Your task to perform on an android device: uninstall "Google Photos" Image 0: 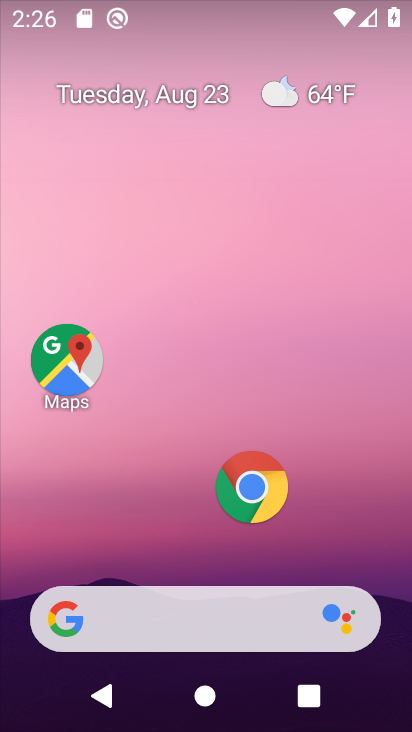
Step 0: drag from (185, 555) to (202, 314)
Your task to perform on an android device: uninstall "Google Photos" Image 1: 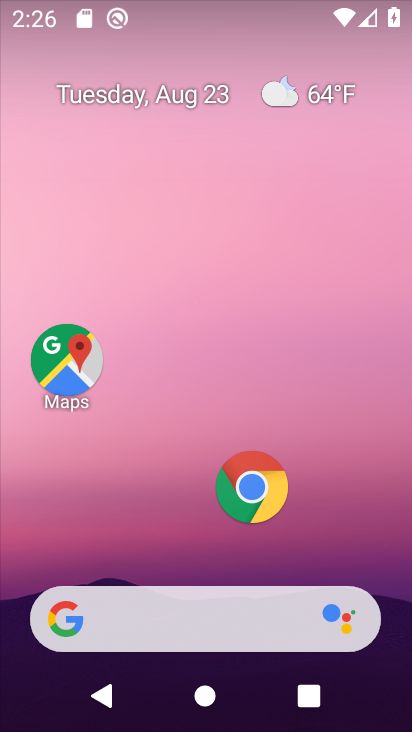
Step 1: drag from (156, 510) to (176, 223)
Your task to perform on an android device: uninstall "Google Photos" Image 2: 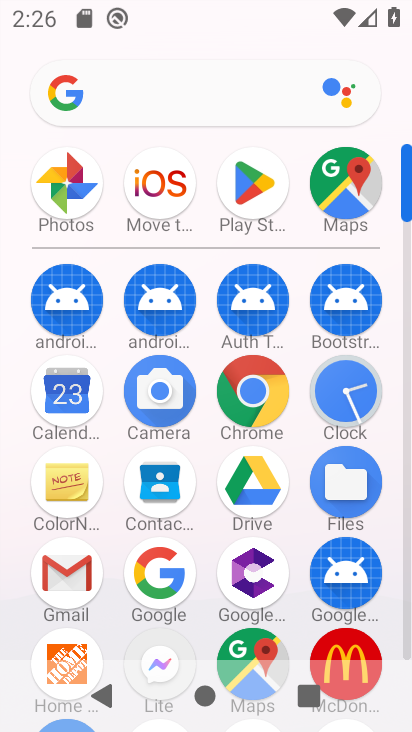
Step 2: click (269, 178)
Your task to perform on an android device: uninstall "Google Photos" Image 3: 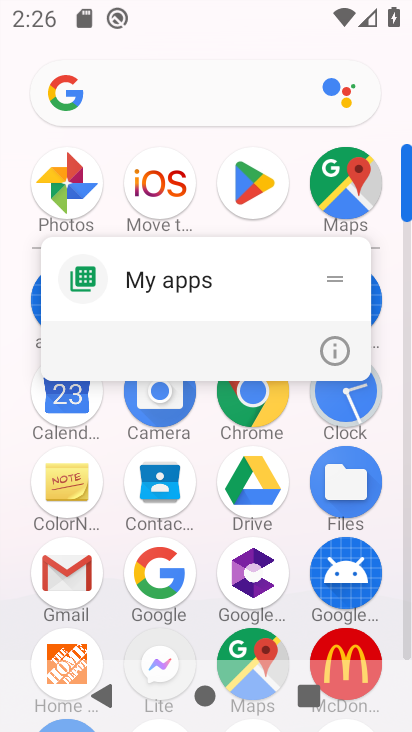
Step 3: click (260, 181)
Your task to perform on an android device: uninstall "Google Photos" Image 4: 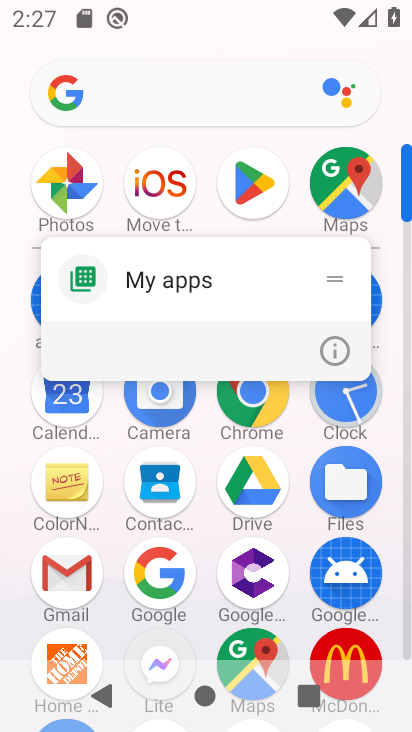
Step 4: click (251, 183)
Your task to perform on an android device: uninstall "Google Photos" Image 5: 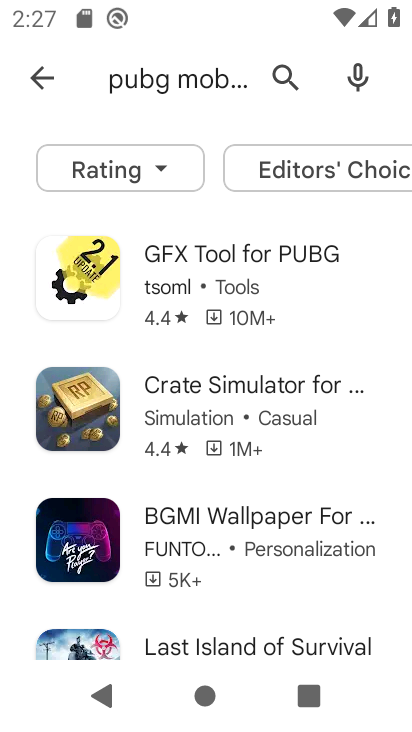
Step 5: click (30, 72)
Your task to perform on an android device: uninstall "Google Photos" Image 6: 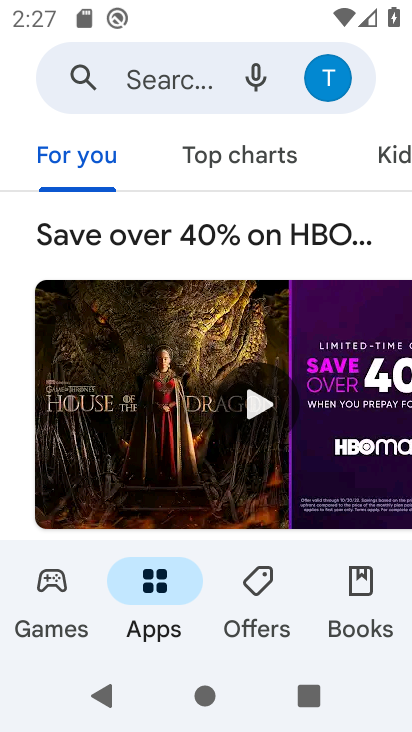
Step 6: click (183, 67)
Your task to perform on an android device: uninstall "Google Photos" Image 7: 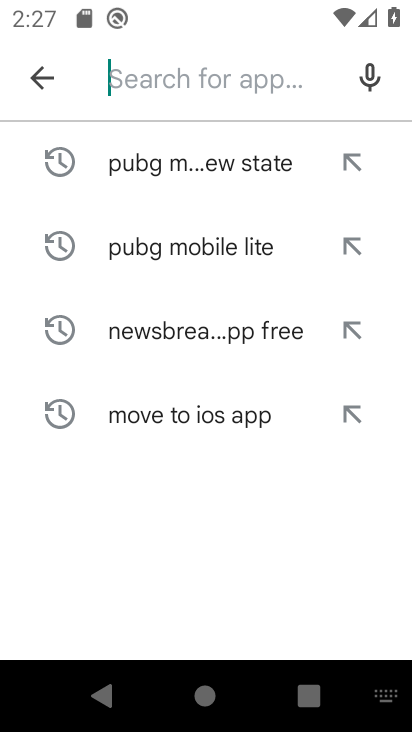
Step 7: type "Google Photos "
Your task to perform on an android device: uninstall "Google Photos" Image 8: 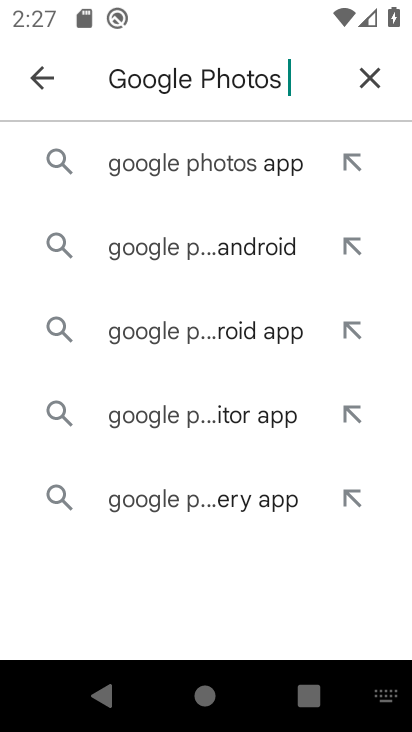
Step 8: click (225, 163)
Your task to perform on an android device: uninstall "Google Photos" Image 9: 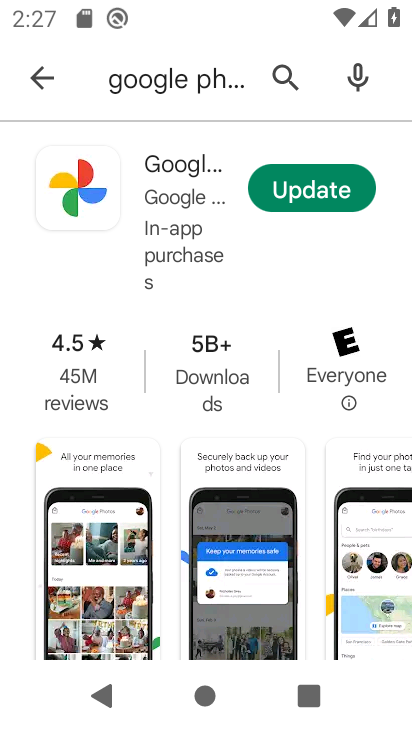
Step 9: click (147, 175)
Your task to perform on an android device: uninstall "Google Photos" Image 10: 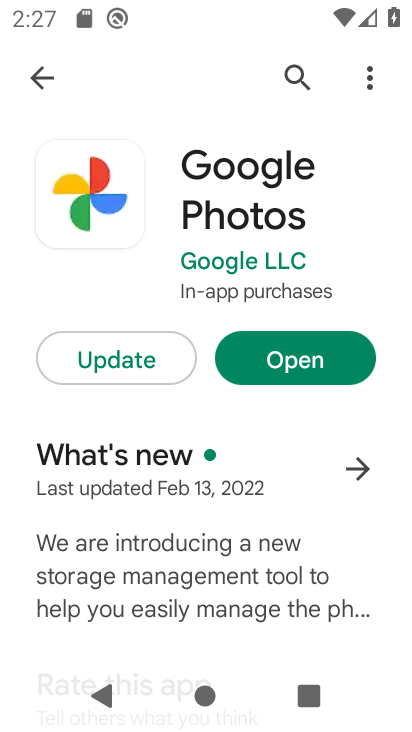
Step 10: click (105, 343)
Your task to perform on an android device: uninstall "Google Photos" Image 11: 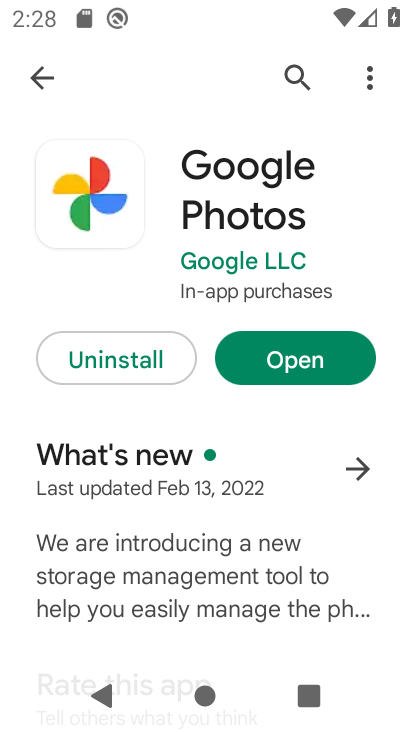
Step 11: click (162, 343)
Your task to perform on an android device: uninstall "Google Photos" Image 12: 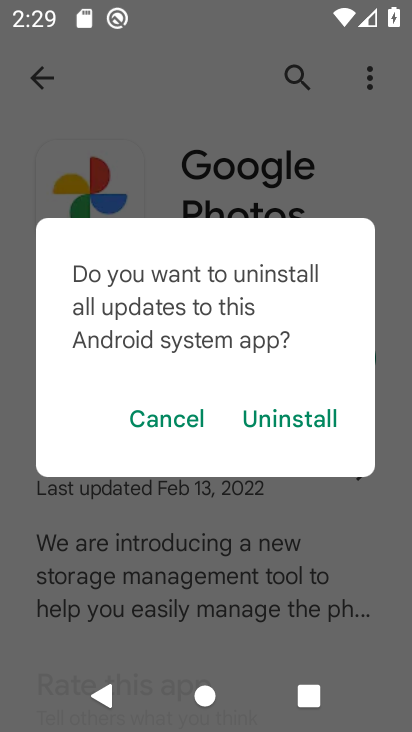
Step 12: click (320, 408)
Your task to perform on an android device: uninstall "Google Photos" Image 13: 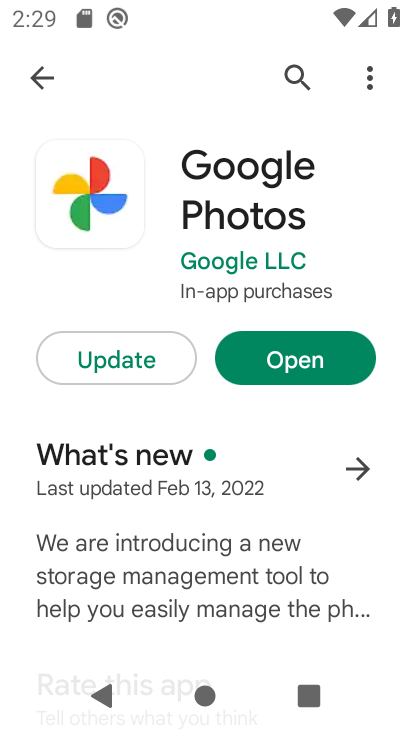
Step 13: task complete